Your task to perform on an android device: Open my contact list Image 0: 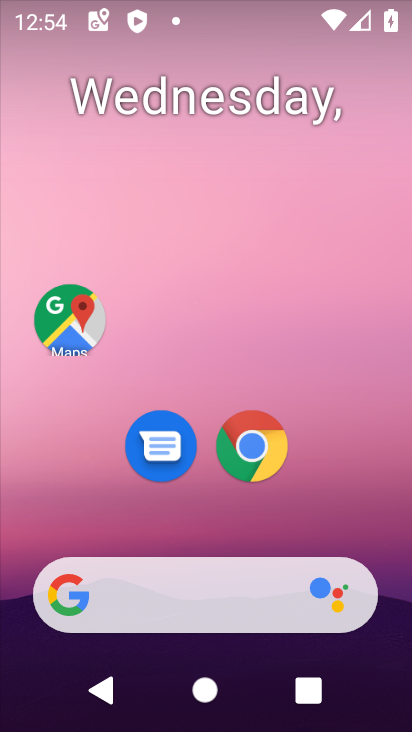
Step 0: drag from (381, 695) to (304, 74)
Your task to perform on an android device: Open my contact list Image 1: 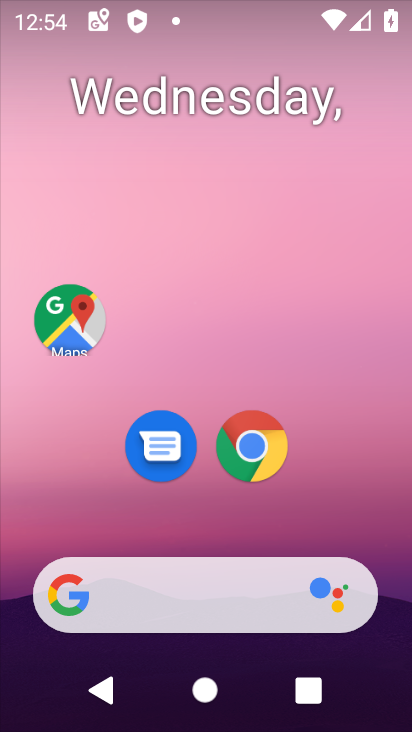
Step 1: drag from (334, 545) to (127, 35)
Your task to perform on an android device: Open my contact list Image 2: 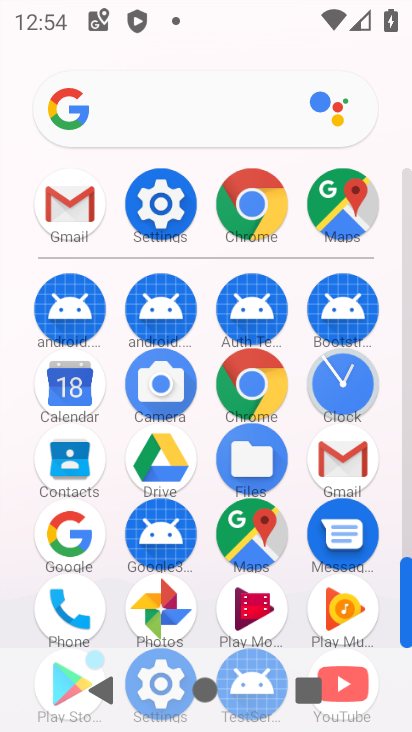
Step 2: drag from (206, 590) to (164, 310)
Your task to perform on an android device: Open my contact list Image 3: 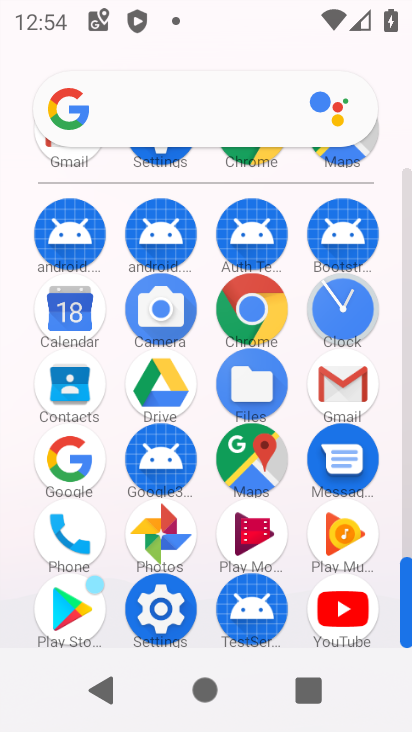
Step 3: click (144, 578)
Your task to perform on an android device: Open my contact list Image 4: 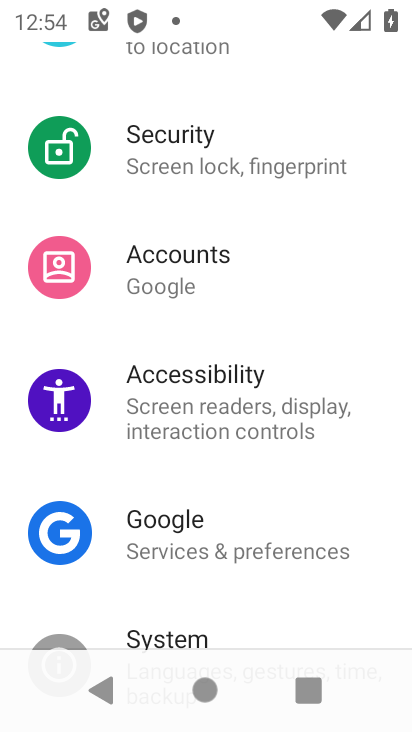
Step 4: drag from (156, 279) to (158, 571)
Your task to perform on an android device: Open my contact list Image 5: 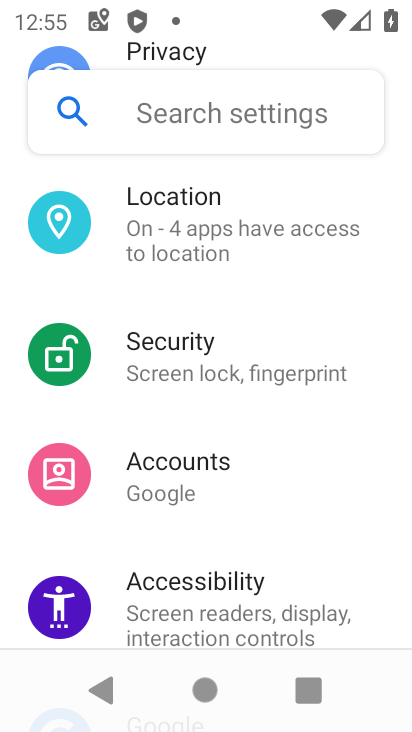
Step 5: drag from (229, 365) to (214, 597)
Your task to perform on an android device: Open my contact list Image 6: 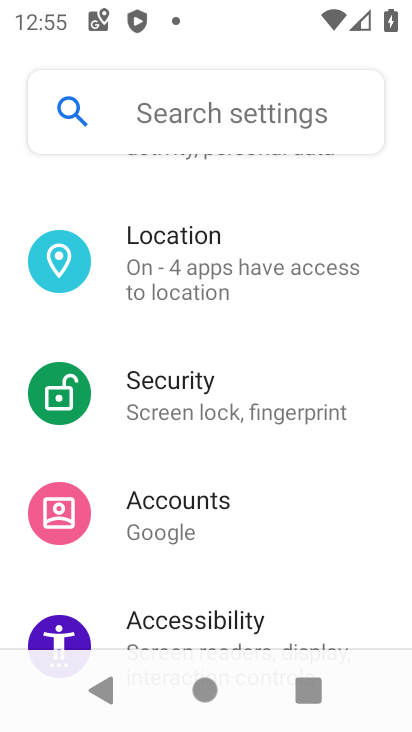
Step 6: drag from (237, 311) to (241, 720)
Your task to perform on an android device: Open my contact list Image 7: 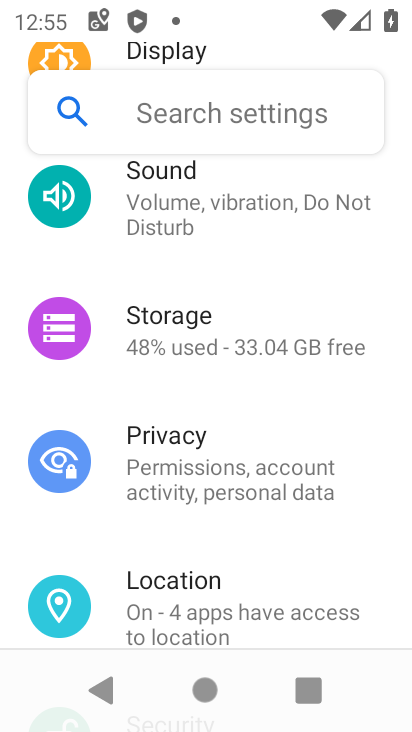
Step 7: drag from (231, 239) to (317, 728)
Your task to perform on an android device: Open my contact list Image 8: 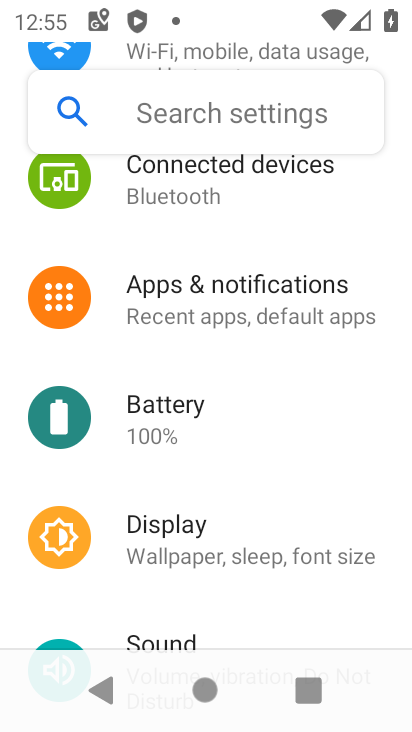
Step 8: press home button
Your task to perform on an android device: Open my contact list Image 9: 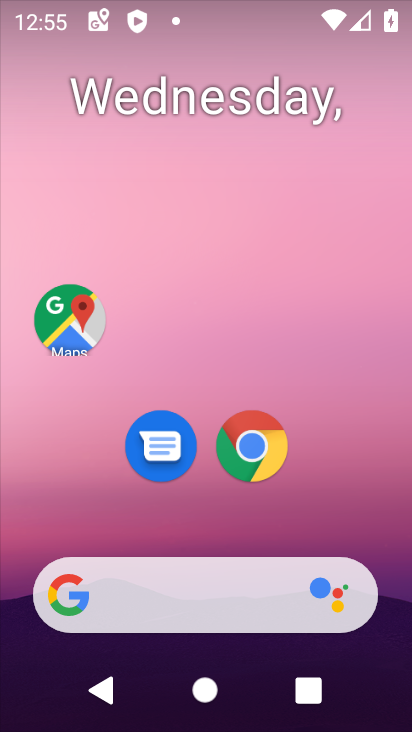
Step 9: drag from (268, 537) to (177, 149)
Your task to perform on an android device: Open my contact list Image 10: 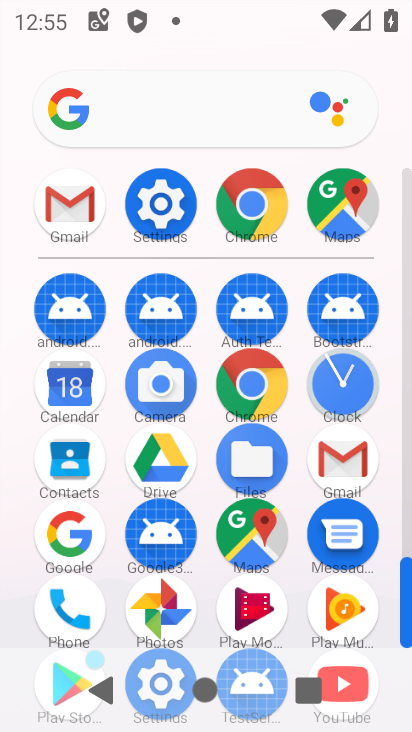
Step 10: drag from (212, 482) to (182, 295)
Your task to perform on an android device: Open my contact list Image 11: 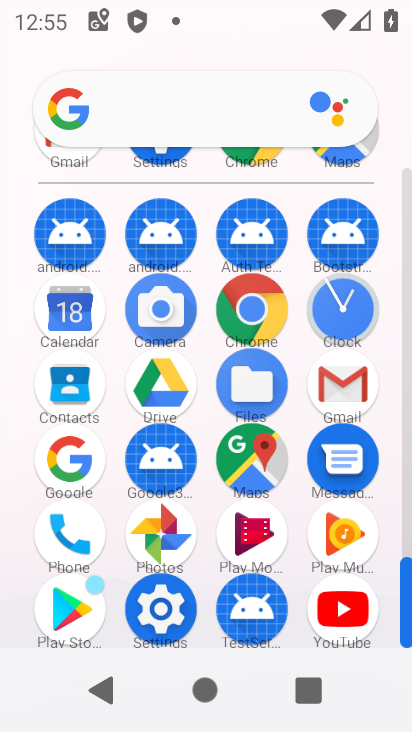
Step 11: click (152, 618)
Your task to perform on an android device: Open my contact list Image 12: 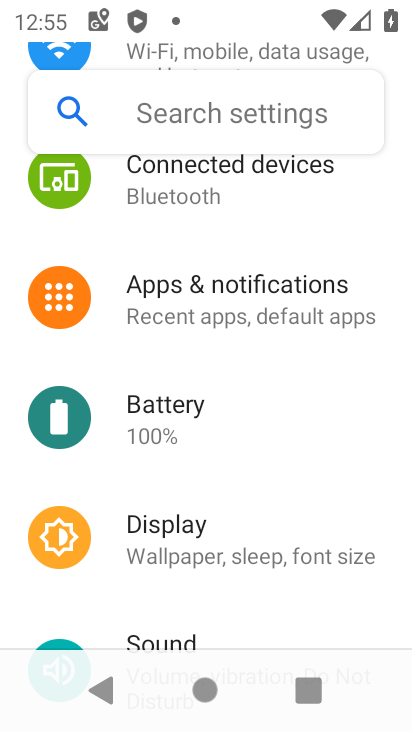
Step 12: press back button
Your task to perform on an android device: Open my contact list Image 13: 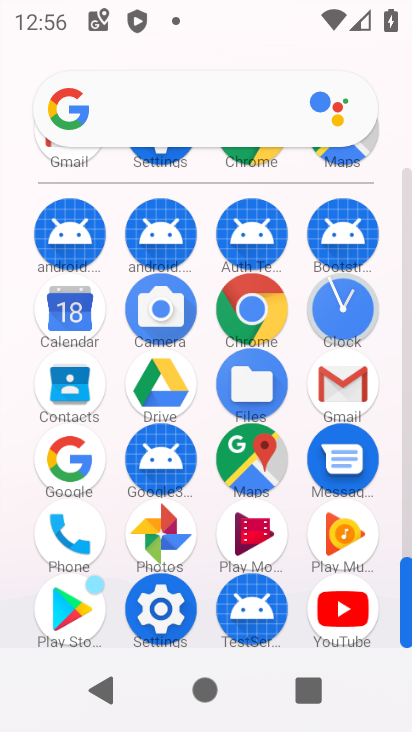
Step 13: click (77, 381)
Your task to perform on an android device: Open my contact list Image 14: 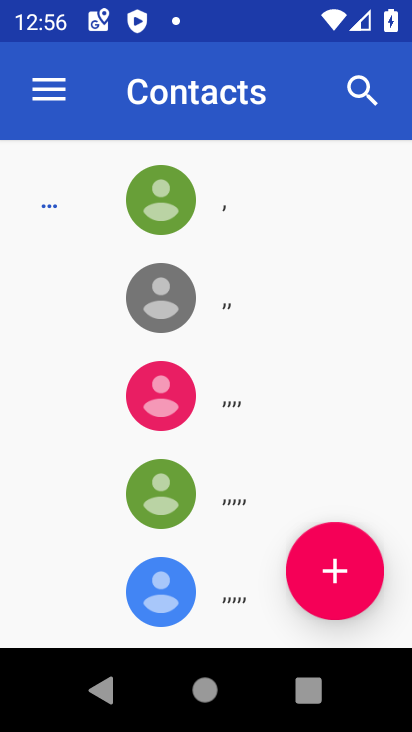
Step 14: task complete